Your task to perform on an android device: turn off priority inbox in the gmail app Image 0: 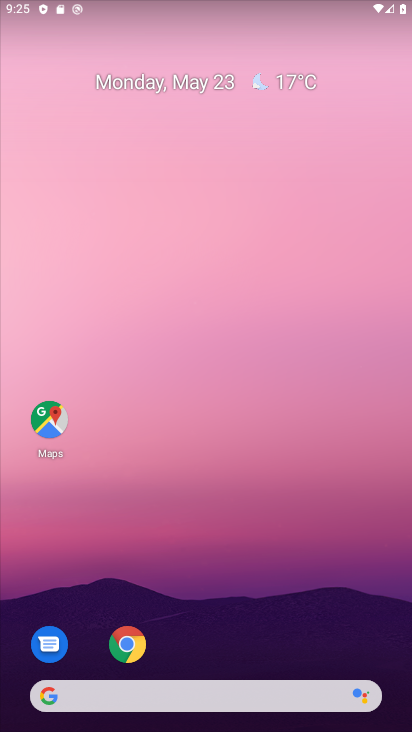
Step 0: drag from (209, 584) to (260, 242)
Your task to perform on an android device: turn off priority inbox in the gmail app Image 1: 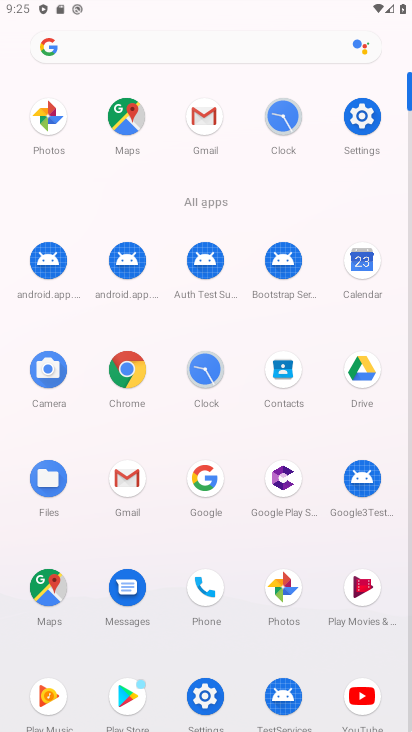
Step 1: click (210, 120)
Your task to perform on an android device: turn off priority inbox in the gmail app Image 2: 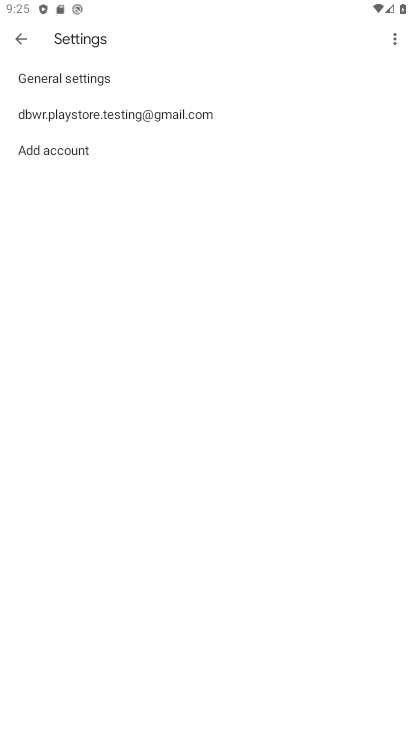
Step 2: click (62, 105)
Your task to perform on an android device: turn off priority inbox in the gmail app Image 3: 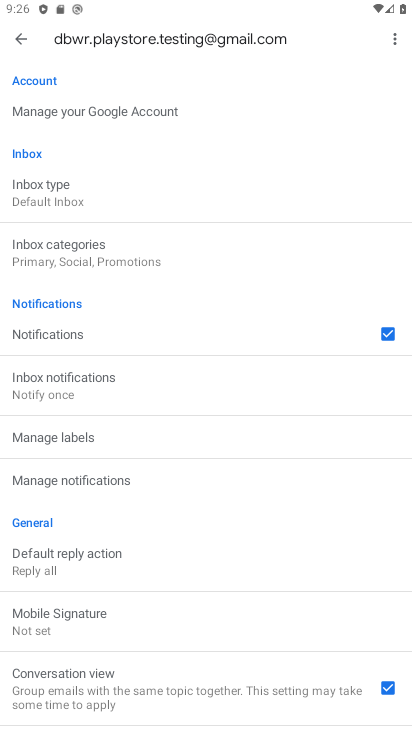
Step 3: click (86, 194)
Your task to perform on an android device: turn off priority inbox in the gmail app Image 4: 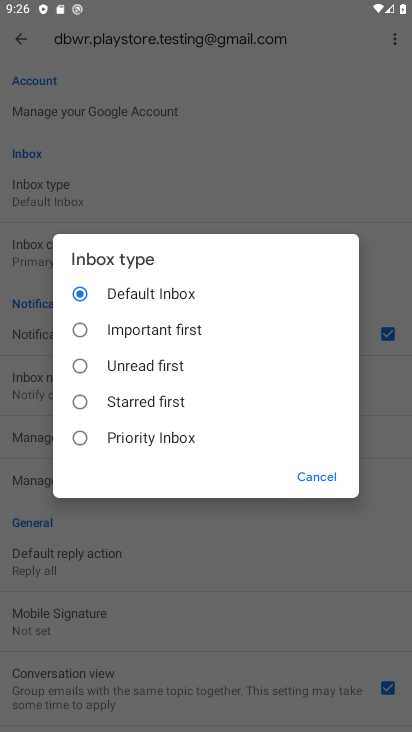
Step 4: click (150, 430)
Your task to perform on an android device: turn off priority inbox in the gmail app Image 5: 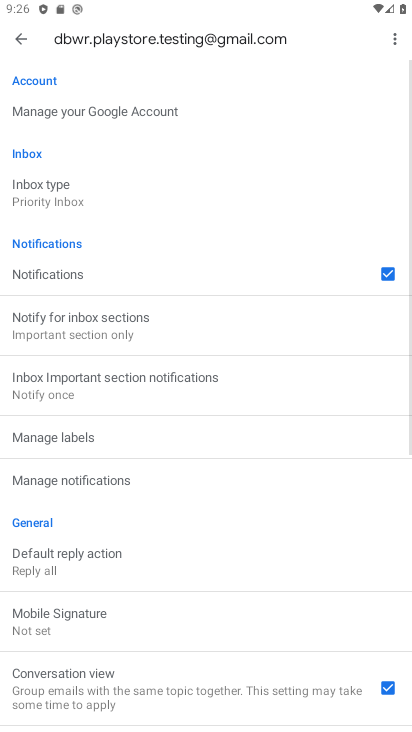
Step 5: click (77, 187)
Your task to perform on an android device: turn off priority inbox in the gmail app Image 6: 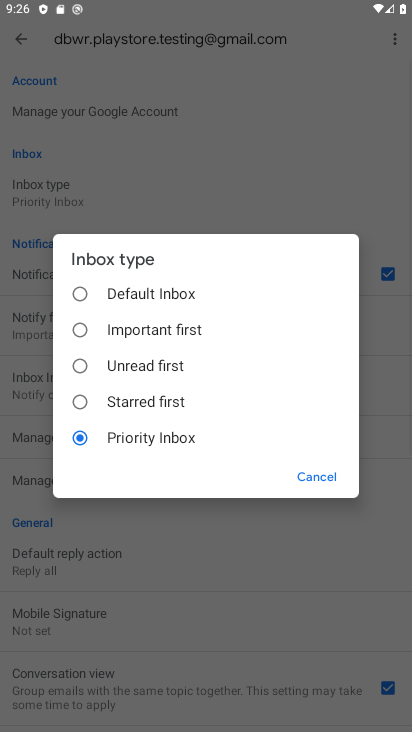
Step 6: click (148, 288)
Your task to perform on an android device: turn off priority inbox in the gmail app Image 7: 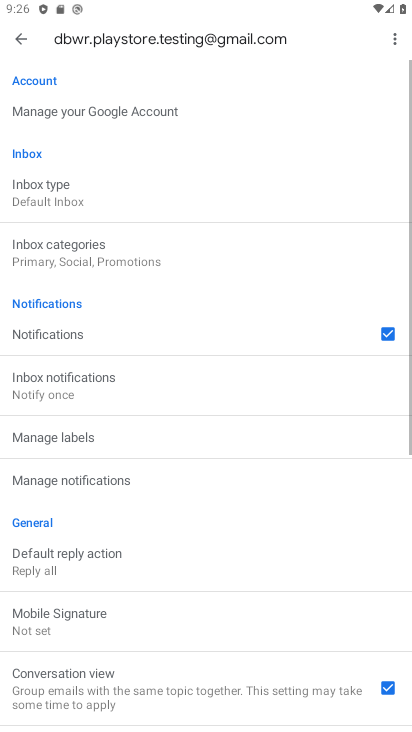
Step 7: task complete